Your task to perform on an android device: Clear the shopping cart on amazon.com. Search for "dell alienware" on amazon.com, select the first entry, add it to the cart, then select checkout. Image 0: 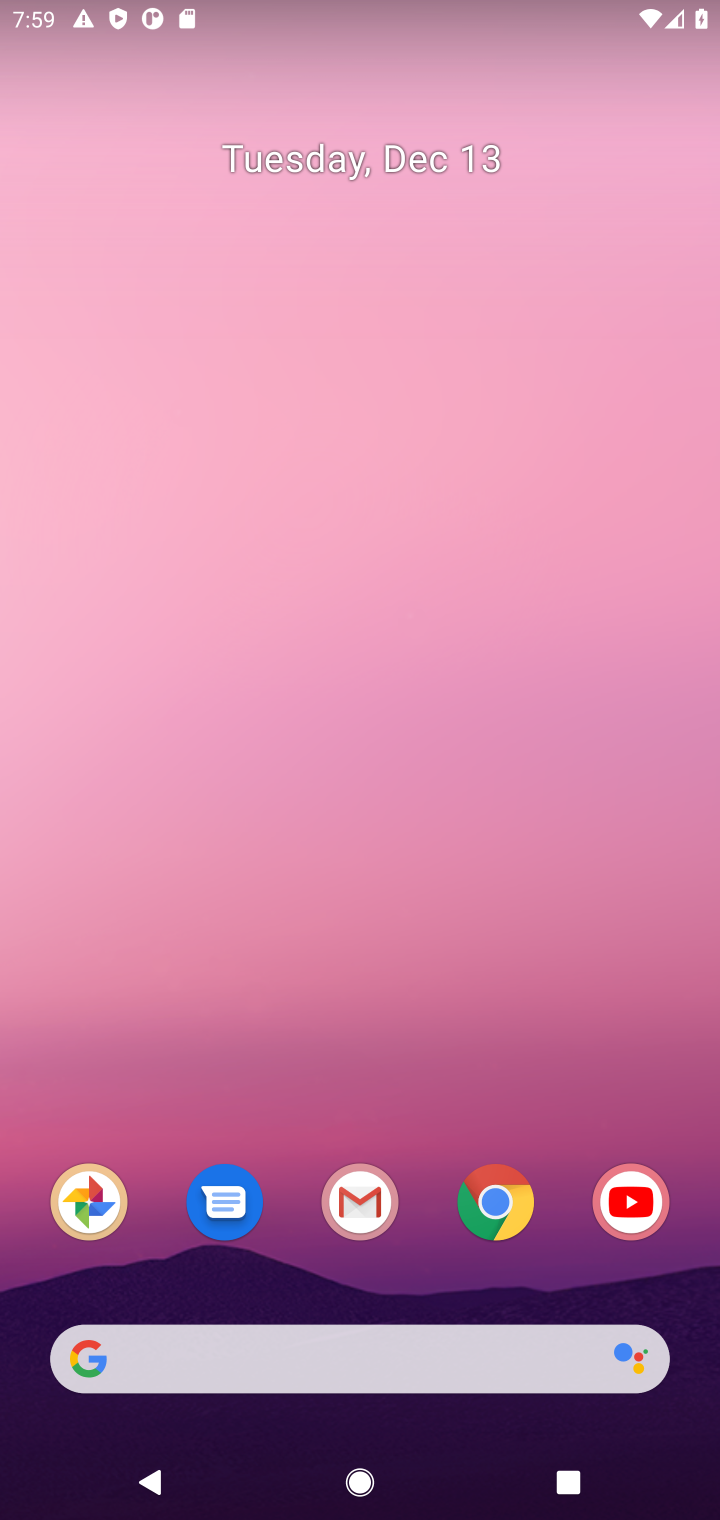
Step 0: click (502, 1218)
Your task to perform on an android device: Clear the shopping cart on amazon.com. Search for "dell alienware" on amazon.com, select the first entry, add it to the cart, then select checkout. Image 1: 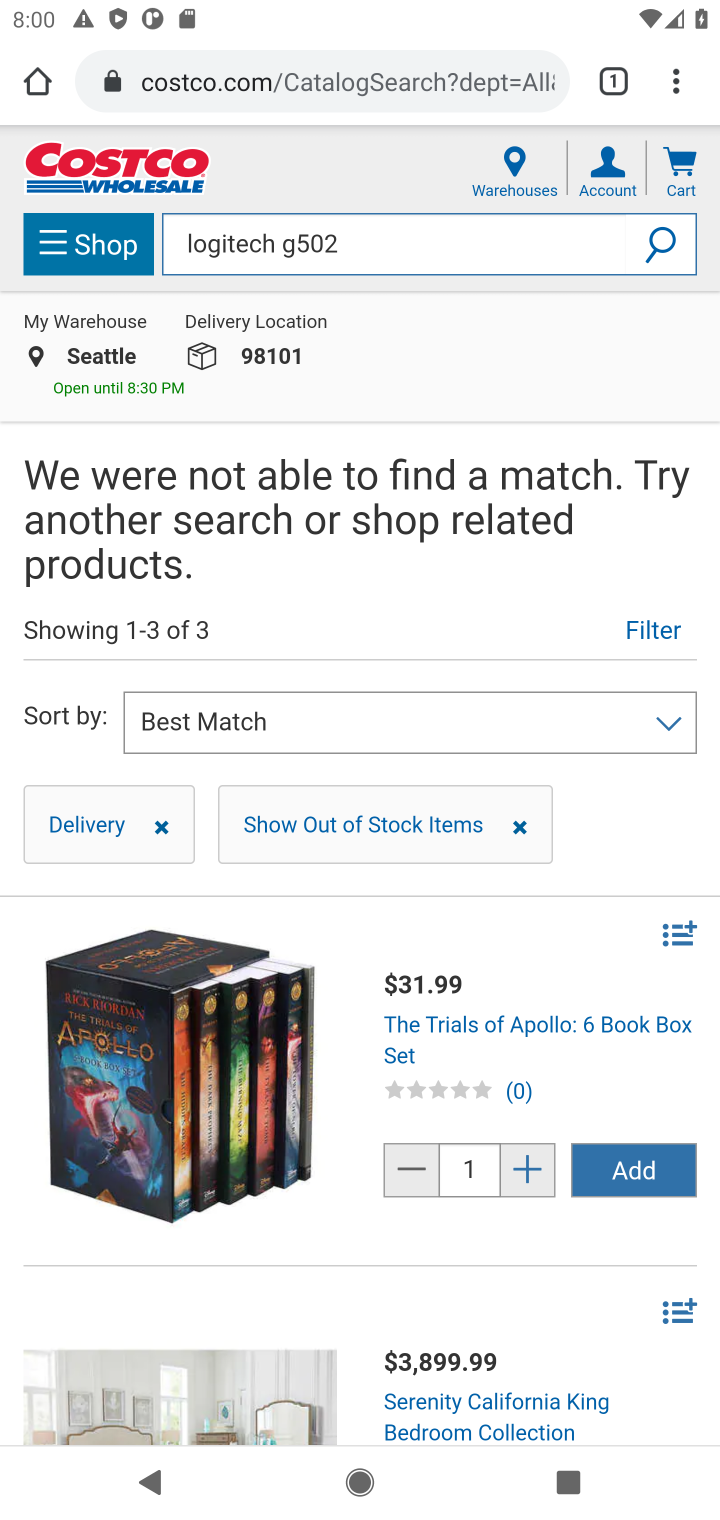
Step 1: click (281, 90)
Your task to perform on an android device: Clear the shopping cart on amazon.com. Search for "dell alienware" on amazon.com, select the first entry, add it to the cart, then select checkout. Image 2: 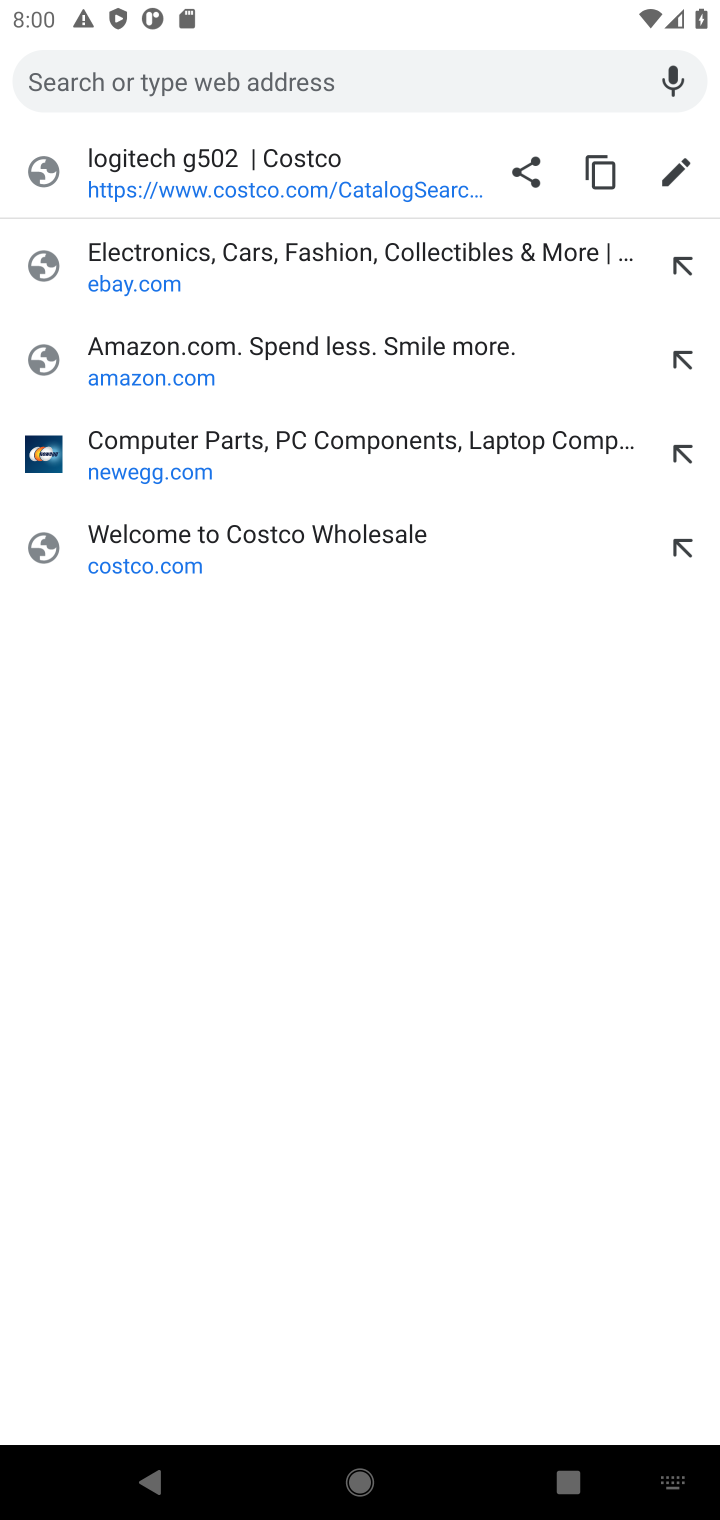
Step 2: click (118, 350)
Your task to perform on an android device: Clear the shopping cart on amazon.com. Search for "dell alienware" on amazon.com, select the first entry, add it to the cart, then select checkout. Image 3: 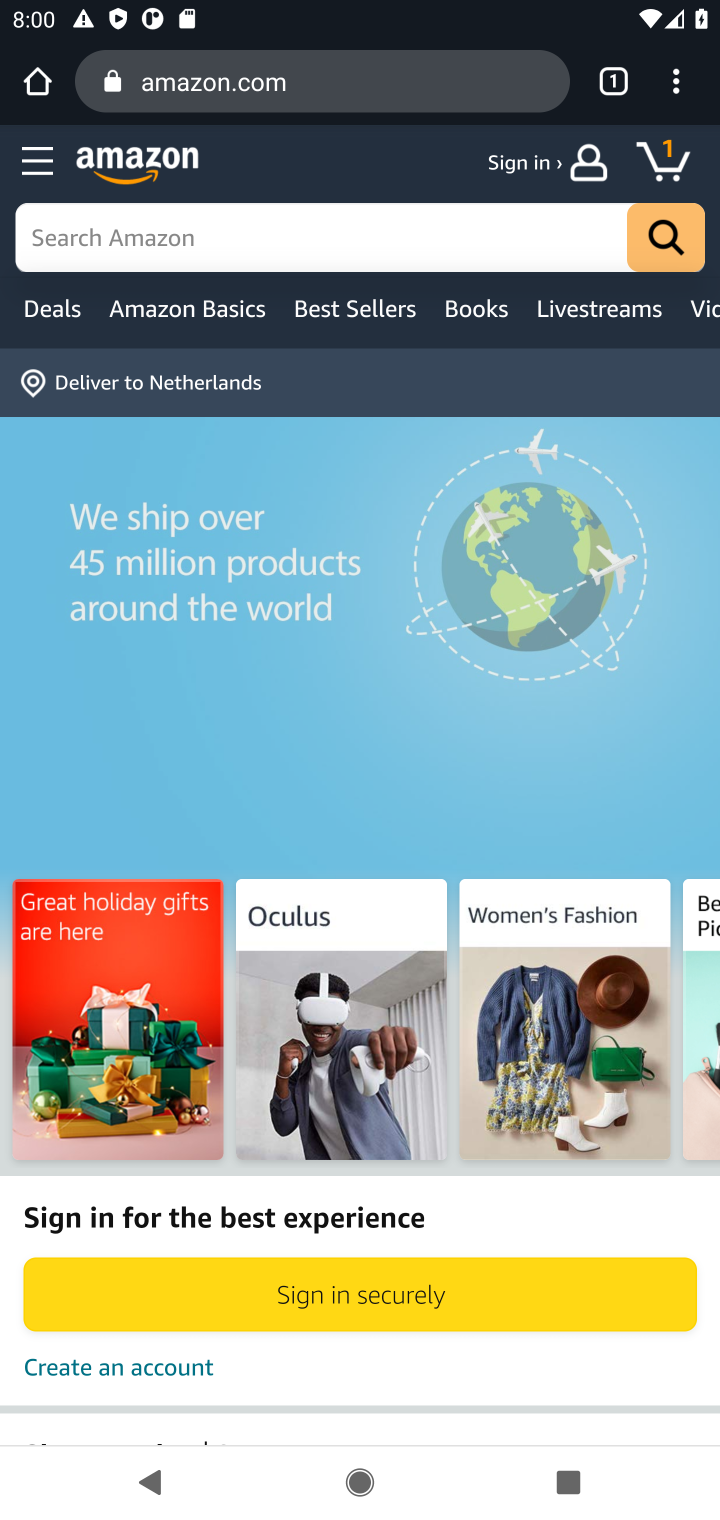
Step 3: click (667, 170)
Your task to perform on an android device: Clear the shopping cart on amazon.com. Search for "dell alienware" on amazon.com, select the first entry, add it to the cart, then select checkout. Image 4: 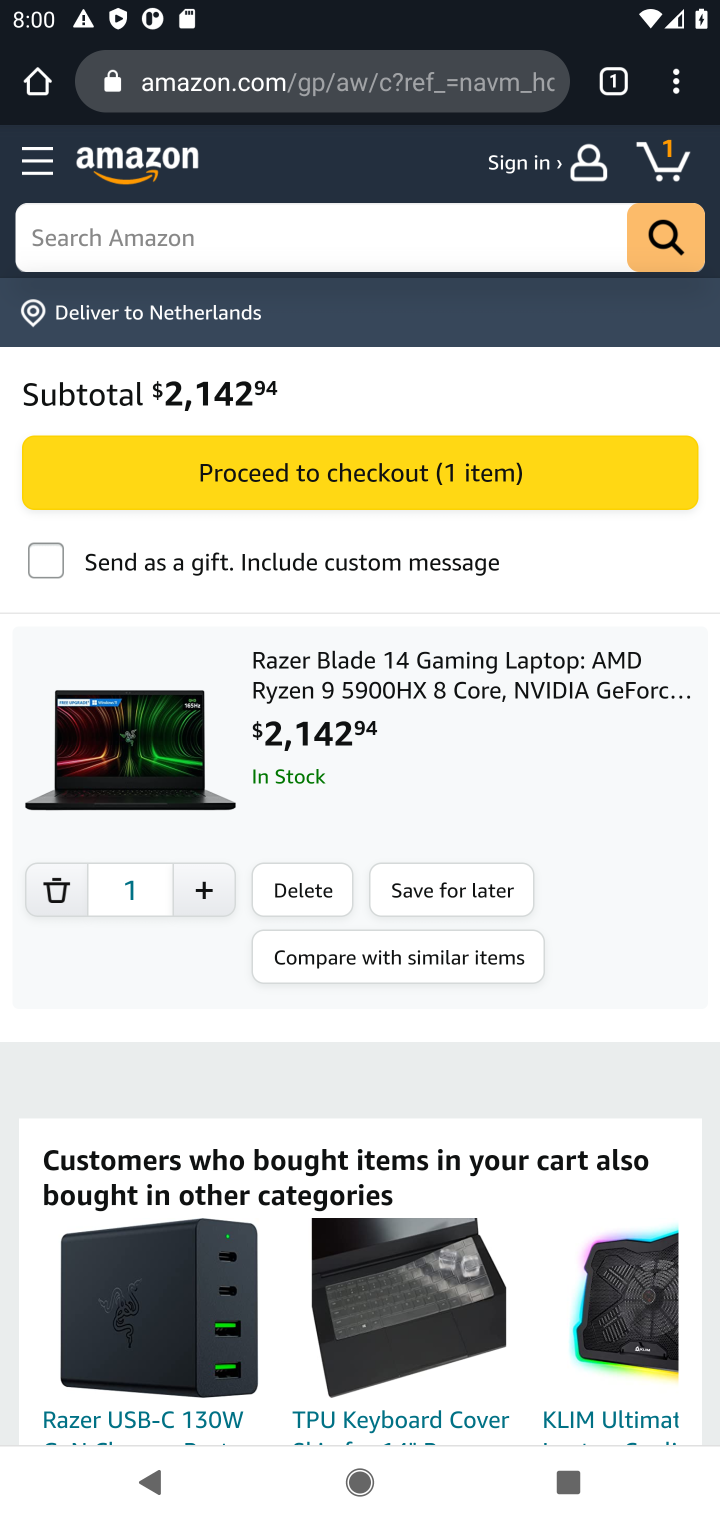
Step 4: click (49, 898)
Your task to perform on an android device: Clear the shopping cart on amazon.com. Search for "dell alienware" on amazon.com, select the first entry, add it to the cart, then select checkout. Image 5: 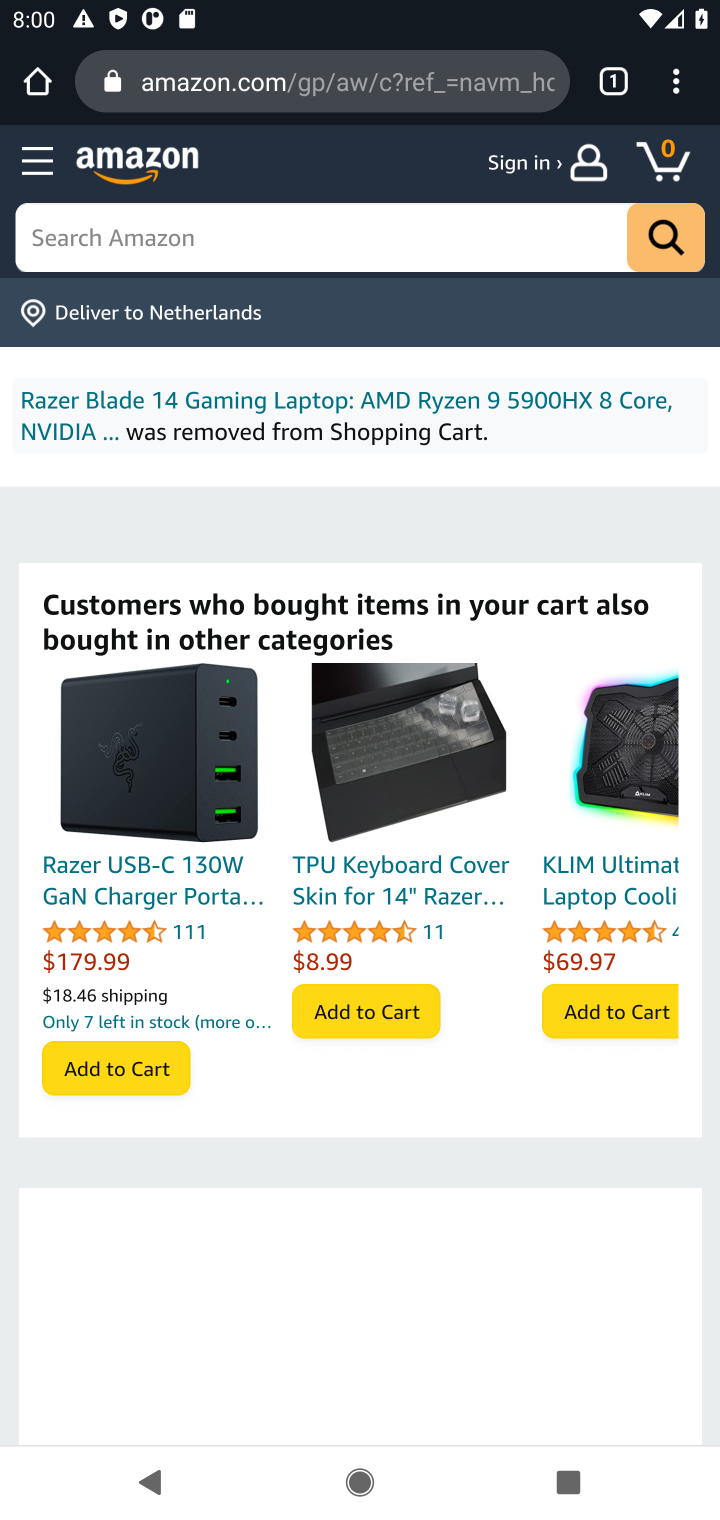
Step 5: click (116, 230)
Your task to perform on an android device: Clear the shopping cart on amazon.com. Search for "dell alienware" on amazon.com, select the first entry, add it to the cart, then select checkout. Image 6: 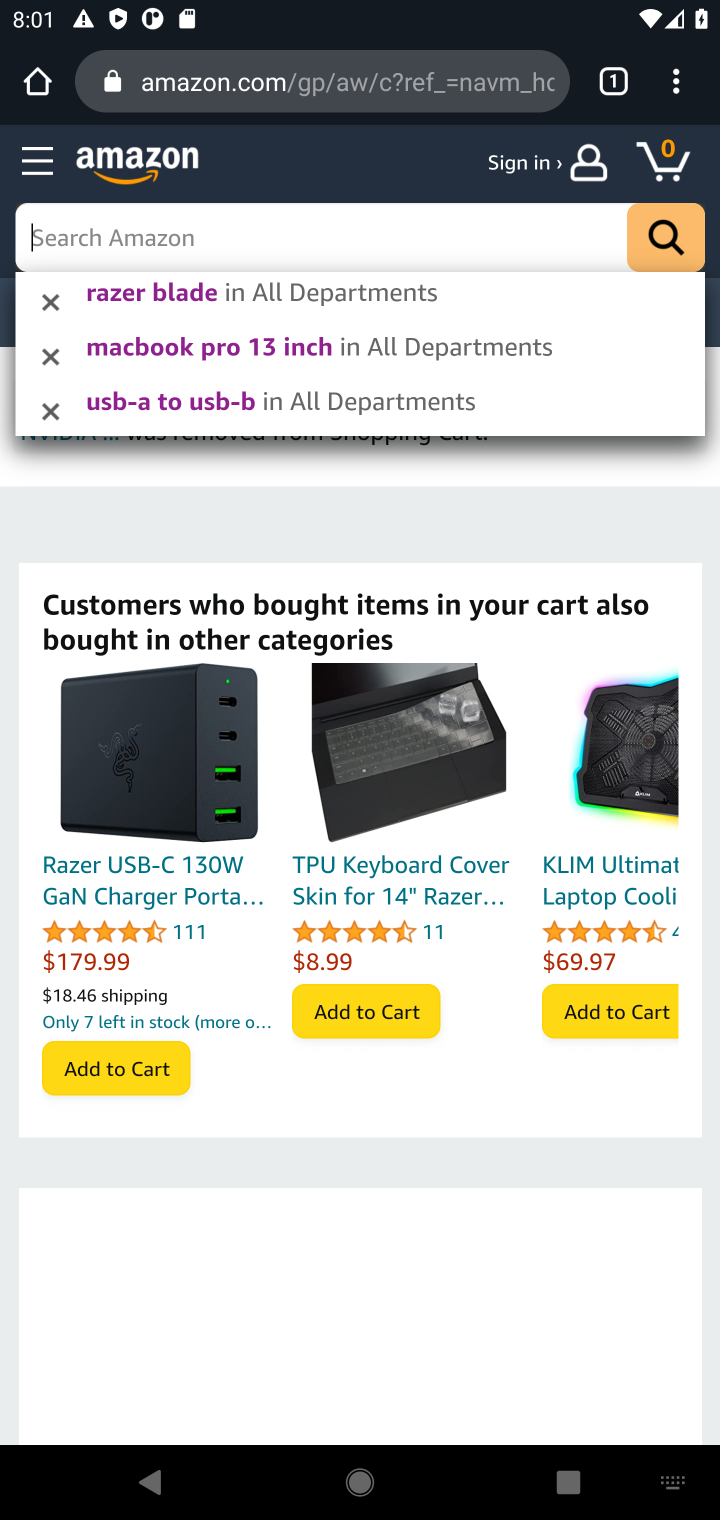
Step 6: type "dell alienware"
Your task to perform on an android device: Clear the shopping cart on amazon.com. Search for "dell alienware" on amazon.com, select the first entry, add it to the cart, then select checkout. Image 7: 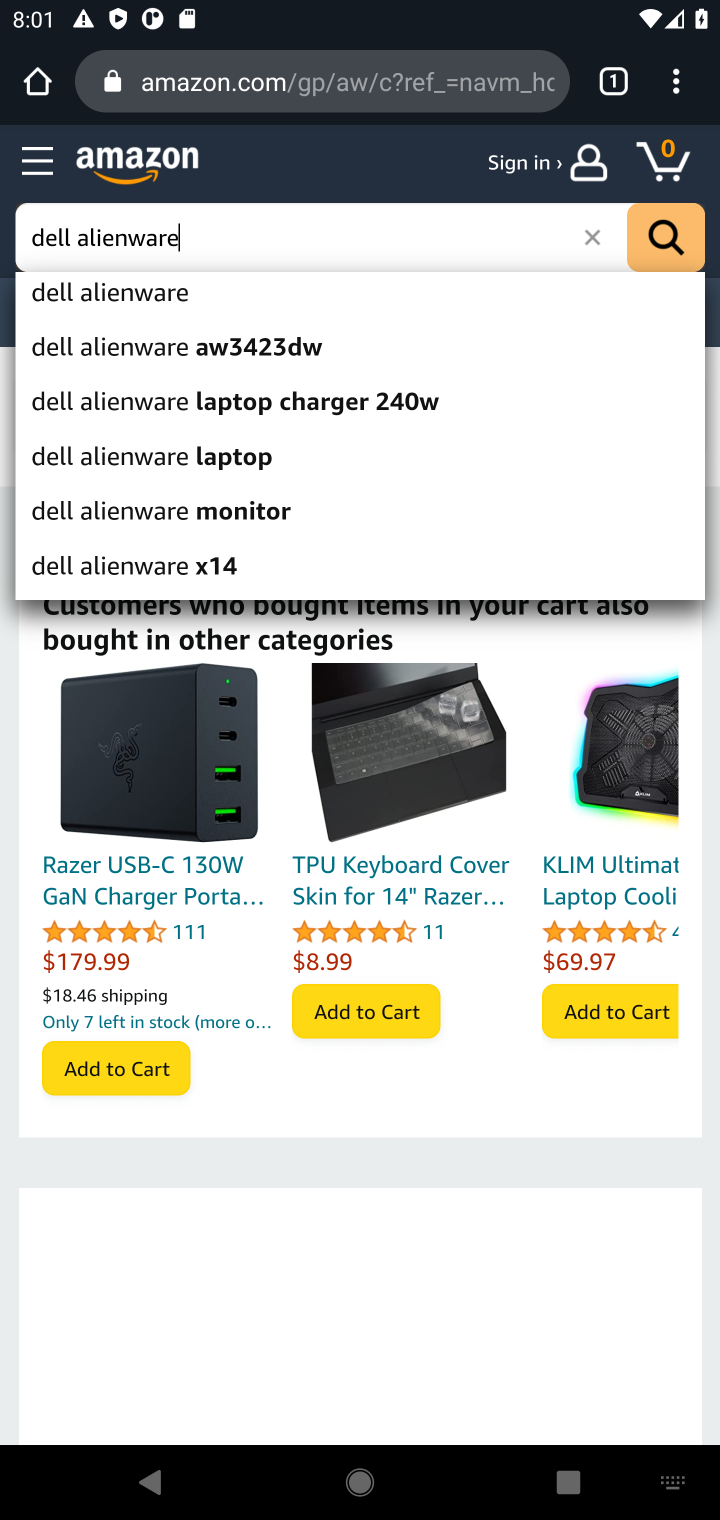
Step 7: click (162, 298)
Your task to perform on an android device: Clear the shopping cart on amazon.com. Search for "dell alienware" on amazon.com, select the first entry, add it to the cart, then select checkout. Image 8: 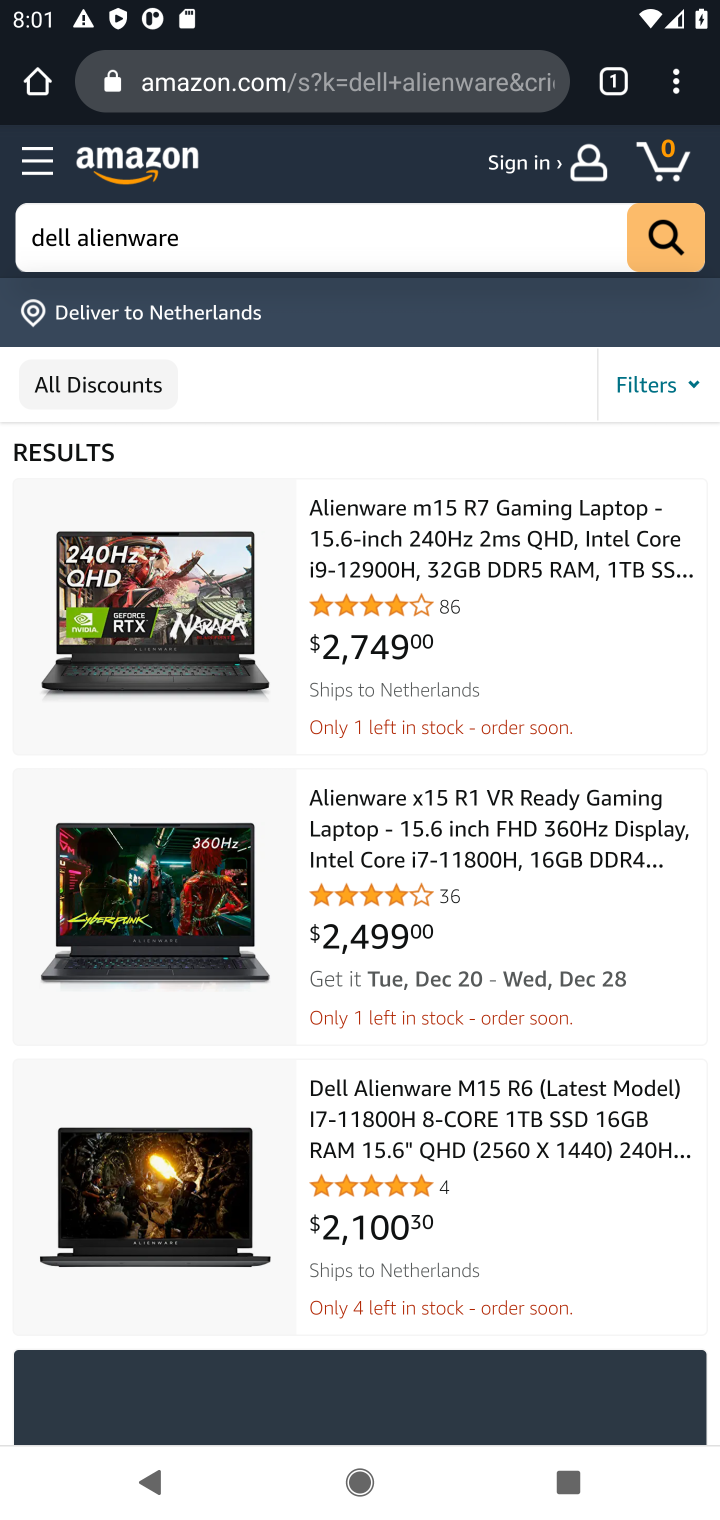
Step 8: click (428, 542)
Your task to perform on an android device: Clear the shopping cart on amazon.com. Search for "dell alienware" on amazon.com, select the first entry, add it to the cart, then select checkout. Image 9: 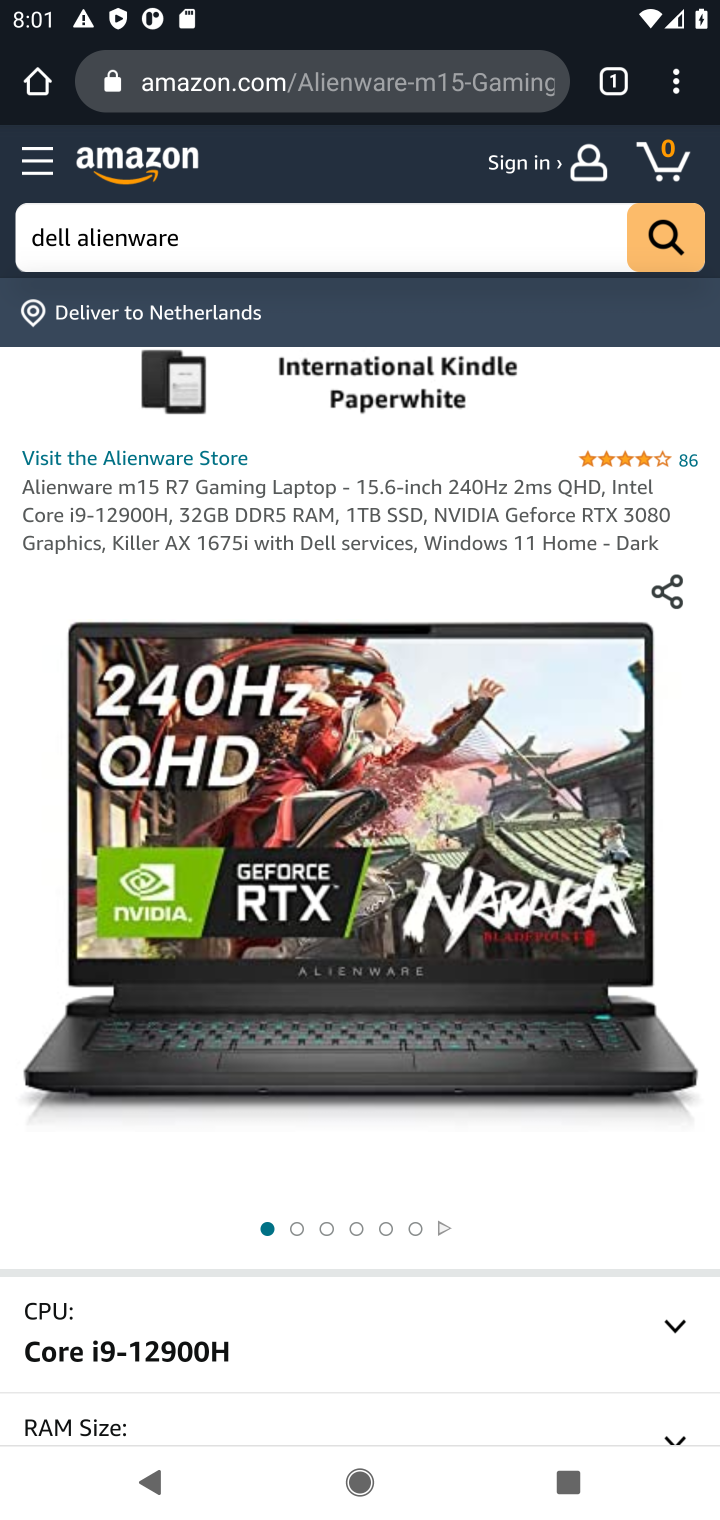
Step 9: drag from (365, 1060) to (378, 491)
Your task to perform on an android device: Clear the shopping cart on amazon.com. Search for "dell alienware" on amazon.com, select the first entry, add it to the cart, then select checkout. Image 10: 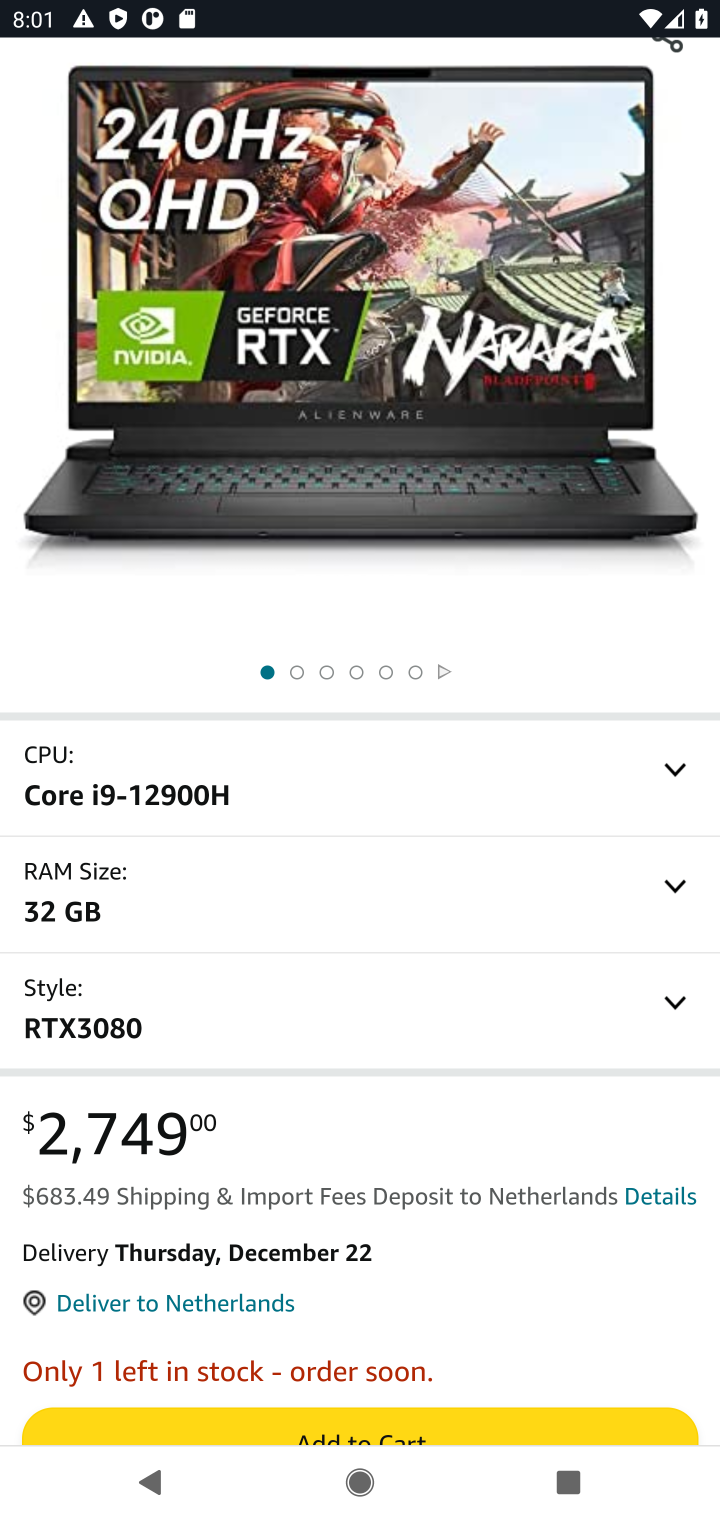
Step 10: drag from (380, 834) to (360, 689)
Your task to perform on an android device: Clear the shopping cart on amazon.com. Search for "dell alienware" on amazon.com, select the first entry, add it to the cart, then select checkout. Image 11: 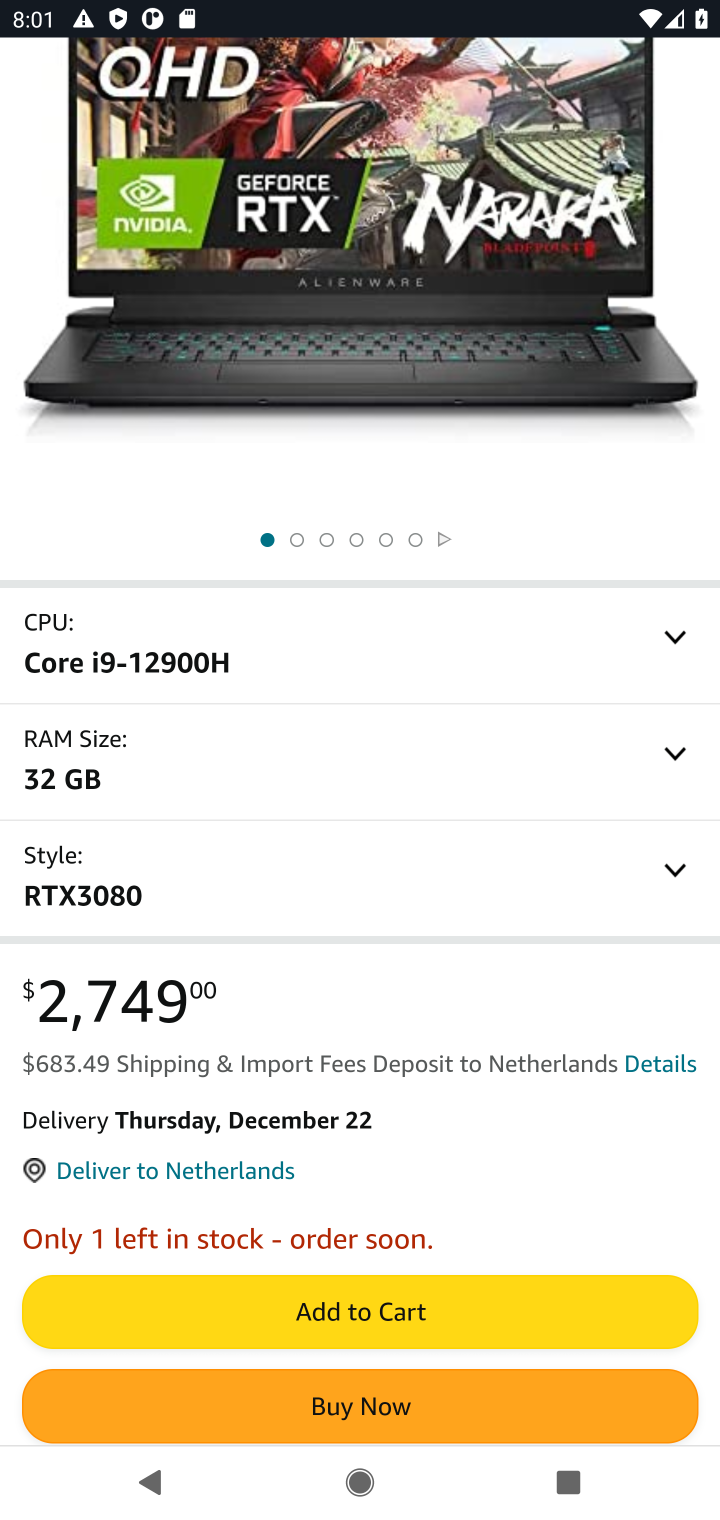
Step 11: click (321, 1307)
Your task to perform on an android device: Clear the shopping cart on amazon.com. Search for "dell alienware" on amazon.com, select the first entry, add it to the cart, then select checkout. Image 12: 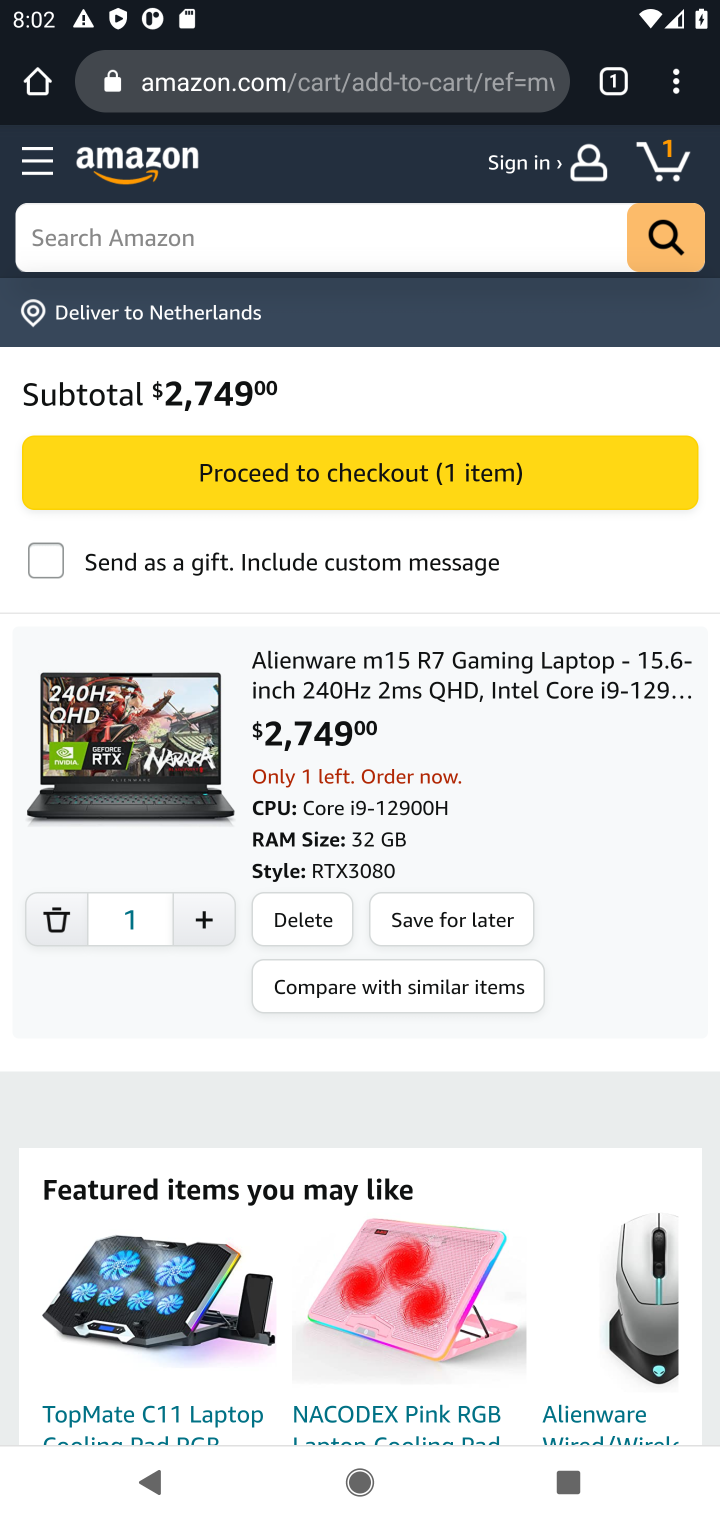
Step 12: click (351, 479)
Your task to perform on an android device: Clear the shopping cart on amazon.com. Search for "dell alienware" on amazon.com, select the first entry, add it to the cart, then select checkout. Image 13: 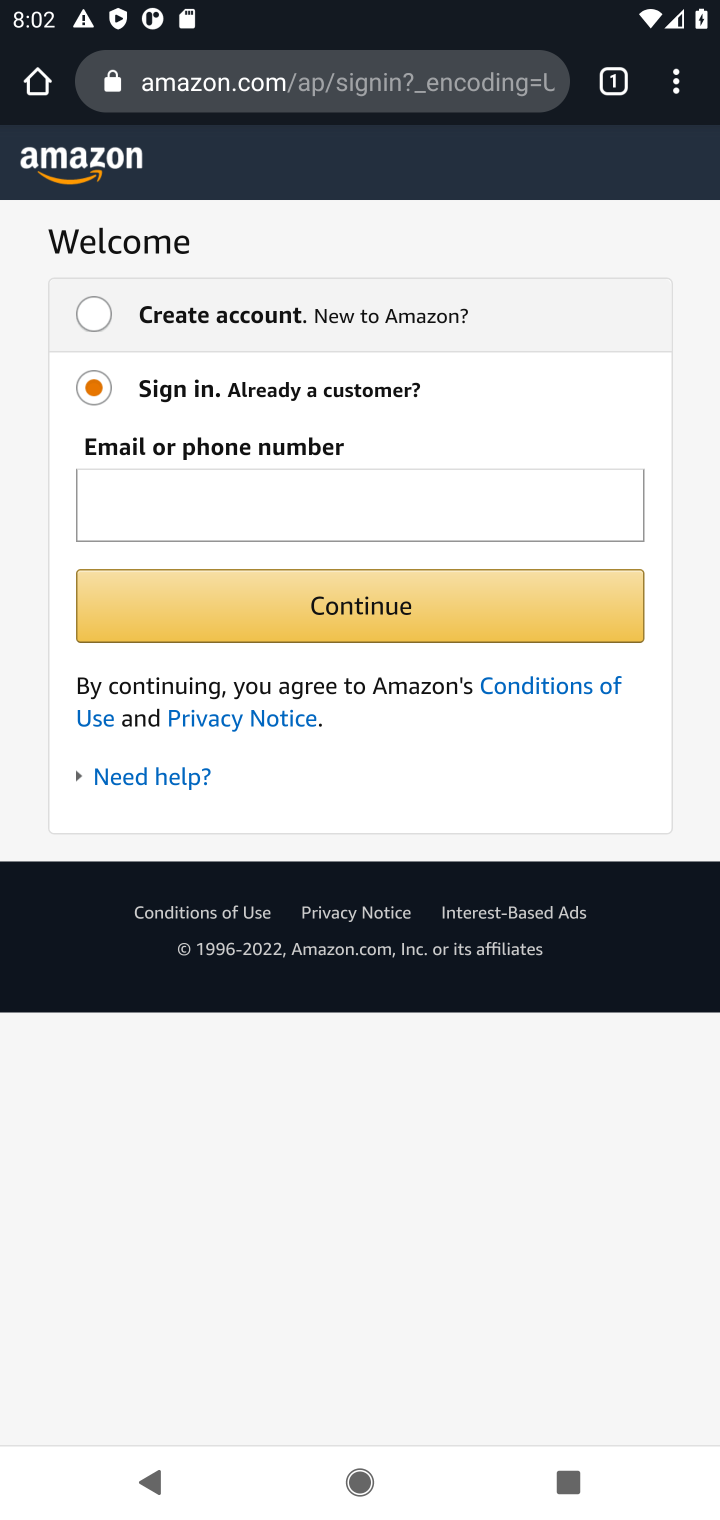
Step 13: task complete